Your task to perform on an android device: add a contact in the contacts app Image 0: 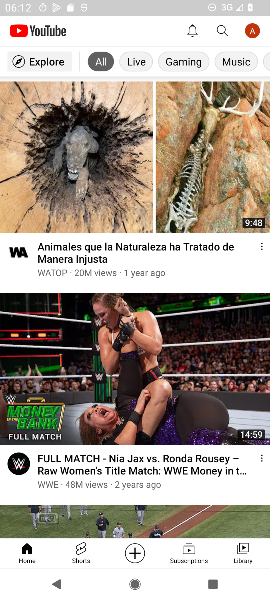
Step 0: press home button
Your task to perform on an android device: add a contact in the contacts app Image 1: 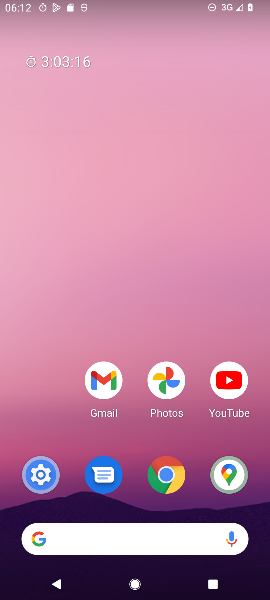
Step 1: drag from (57, 425) to (50, 159)
Your task to perform on an android device: add a contact in the contacts app Image 2: 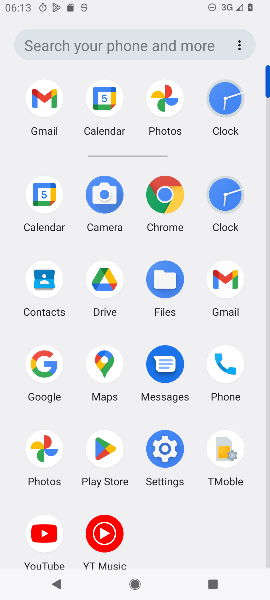
Step 2: click (43, 278)
Your task to perform on an android device: add a contact in the contacts app Image 3: 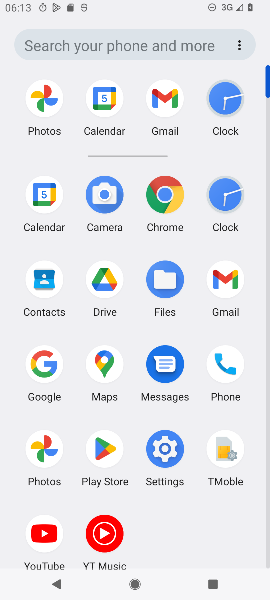
Step 3: click (43, 279)
Your task to perform on an android device: add a contact in the contacts app Image 4: 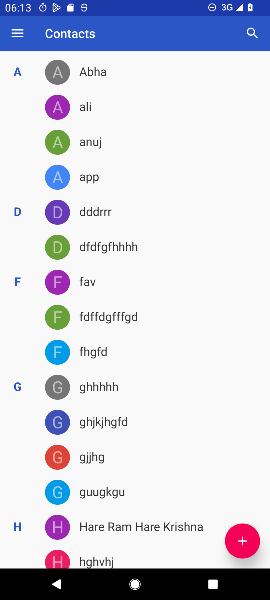
Step 4: click (242, 540)
Your task to perform on an android device: add a contact in the contacts app Image 5: 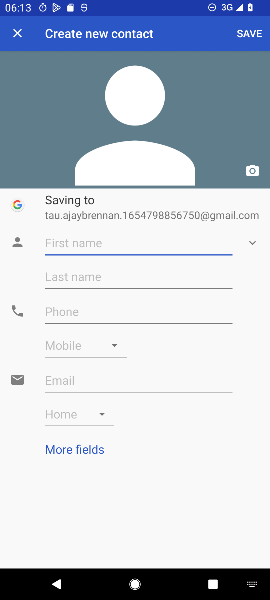
Step 5: click (166, 240)
Your task to perform on an android device: add a contact in the contacts app Image 6: 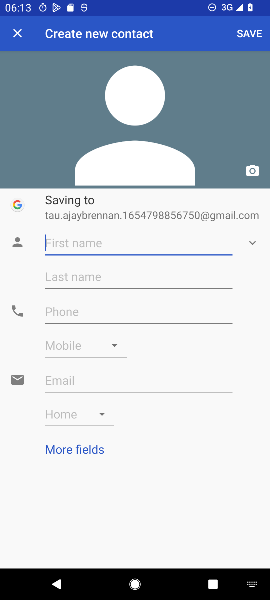
Step 6: type "fgav"
Your task to perform on an android device: add a contact in the contacts app Image 7: 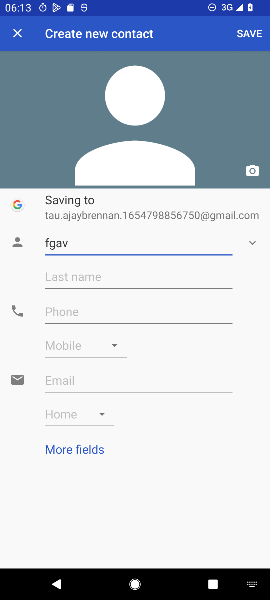
Step 7: click (115, 308)
Your task to perform on an android device: add a contact in the contacts app Image 8: 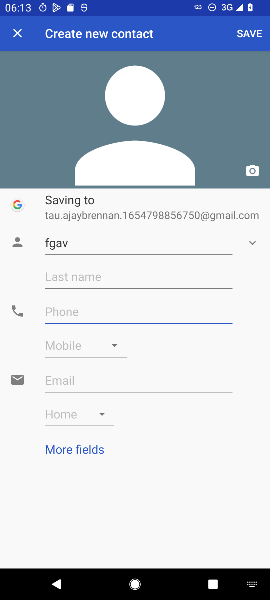
Step 8: type "1234567890"
Your task to perform on an android device: add a contact in the contacts app Image 9: 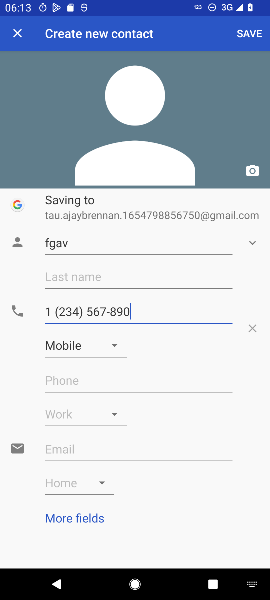
Step 9: click (255, 33)
Your task to perform on an android device: add a contact in the contacts app Image 10: 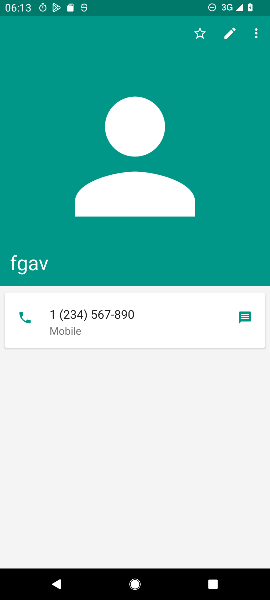
Step 10: task complete